Your task to perform on an android device: toggle location history Image 0: 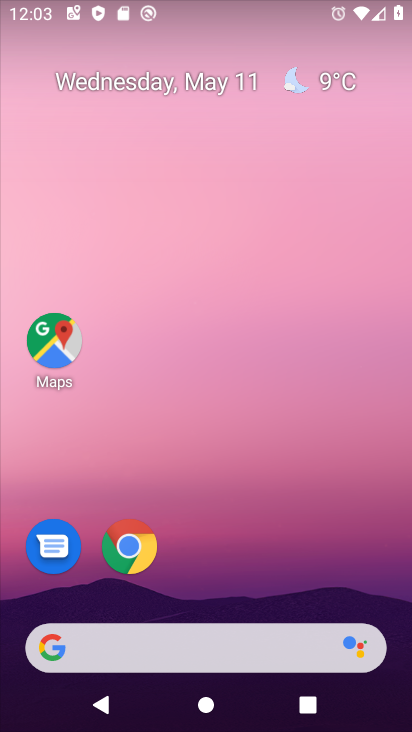
Step 0: drag from (215, 25) to (265, 4)
Your task to perform on an android device: toggle location history Image 1: 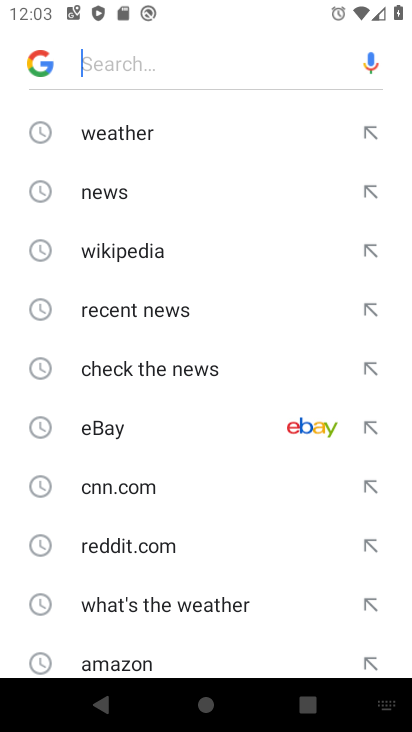
Step 1: press home button
Your task to perform on an android device: toggle location history Image 2: 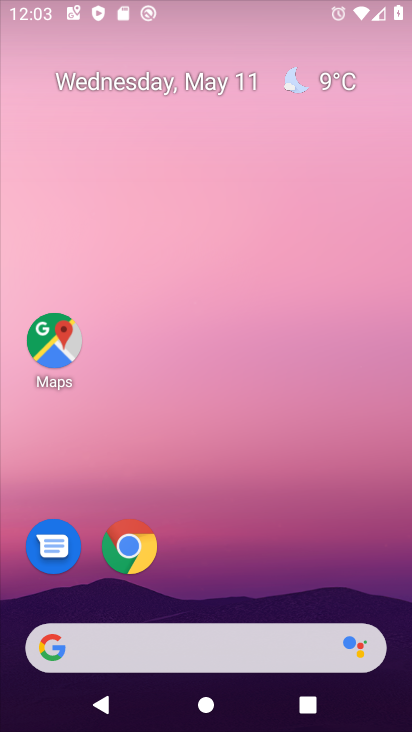
Step 2: drag from (184, 600) to (269, 24)
Your task to perform on an android device: toggle location history Image 3: 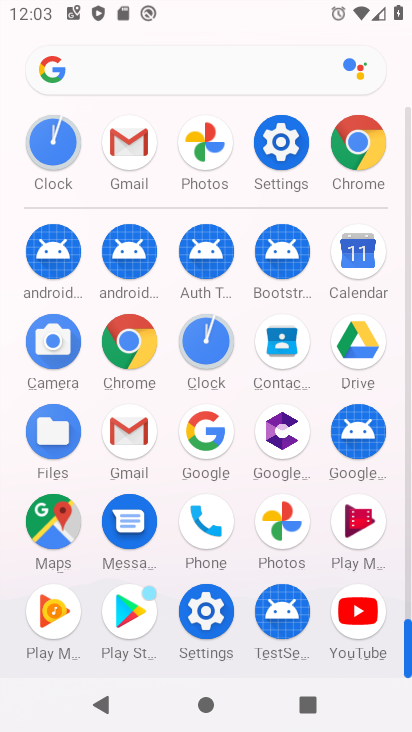
Step 3: click (287, 137)
Your task to perform on an android device: toggle location history Image 4: 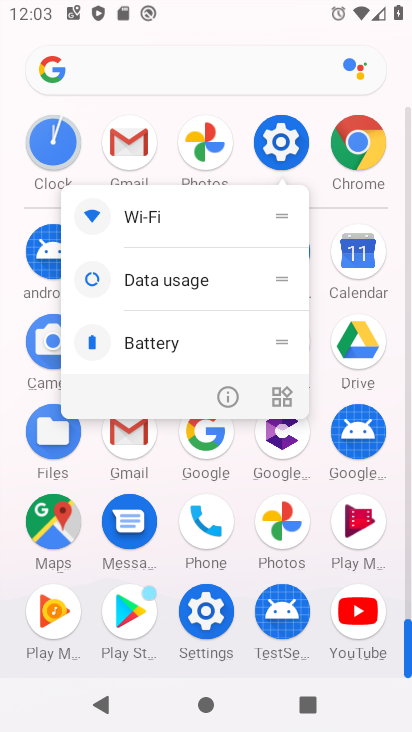
Step 4: click (229, 405)
Your task to perform on an android device: toggle location history Image 5: 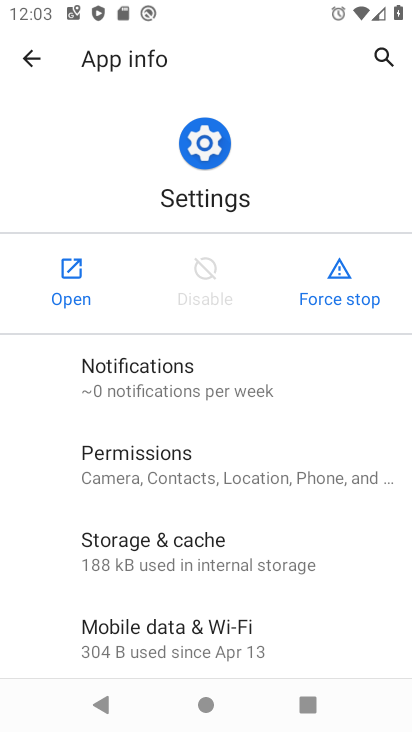
Step 5: click (46, 270)
Your task to perform on an android device: toggle location history Image 6: 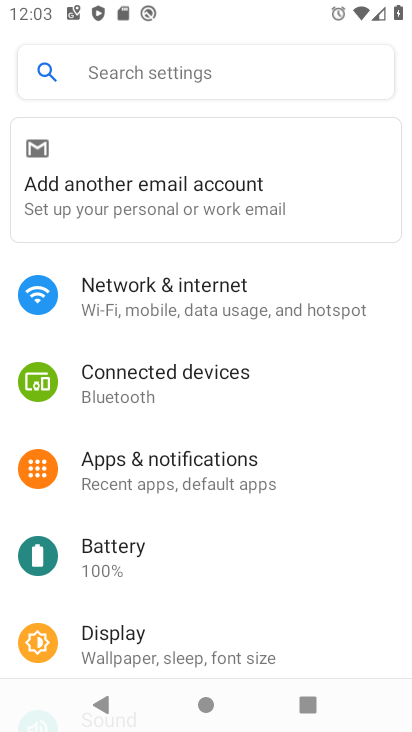
Step 6: drag from (232, 644) to (299, 272)
Your task to perform on an android device: toggle location history Image 7: 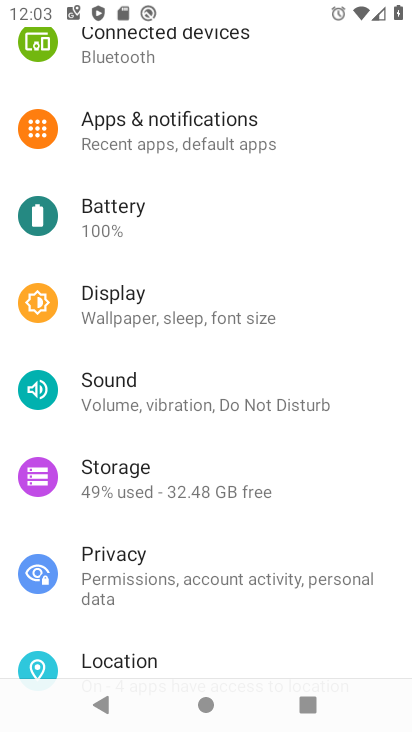
Step 7: click (131, 650)
Your task to perform on an android device: toggle location history Image 8: 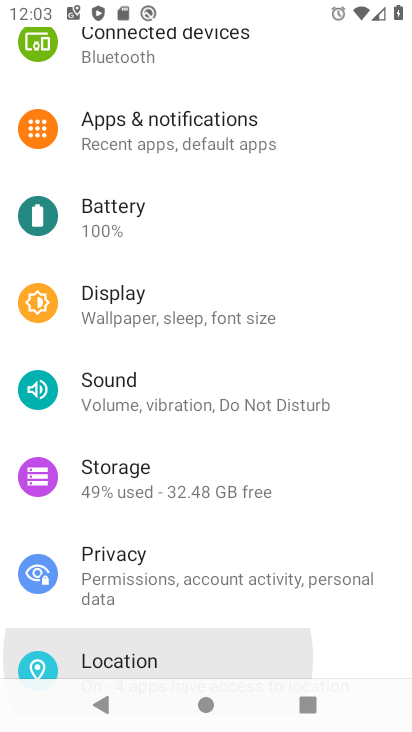
Step 8: click (131, 650)
Your task to perform on an android device: toggle location history Image 9: 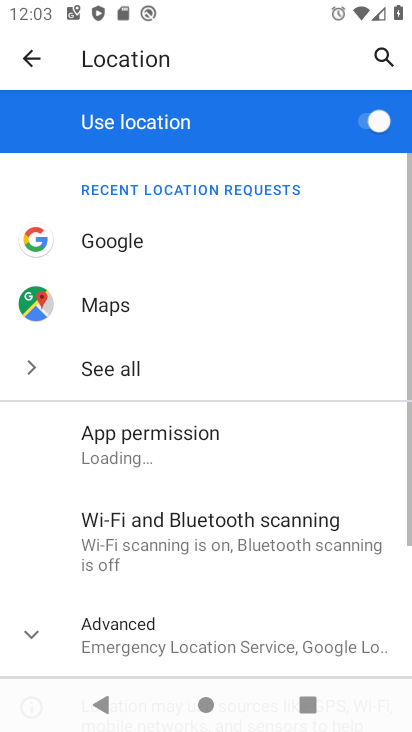
Step 9: drag from (141, 622) to (251, 110)
Your task to perform on an android device: toggle location history Image 10: 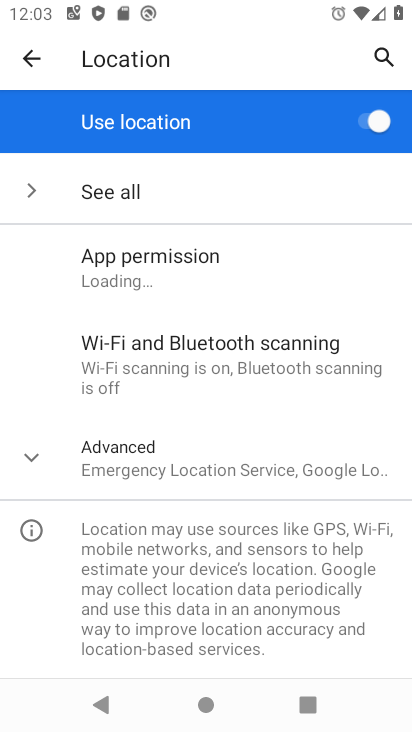
Step 10: click (192, 465)
Your task to perform on an android device: toggle location history Image 11: 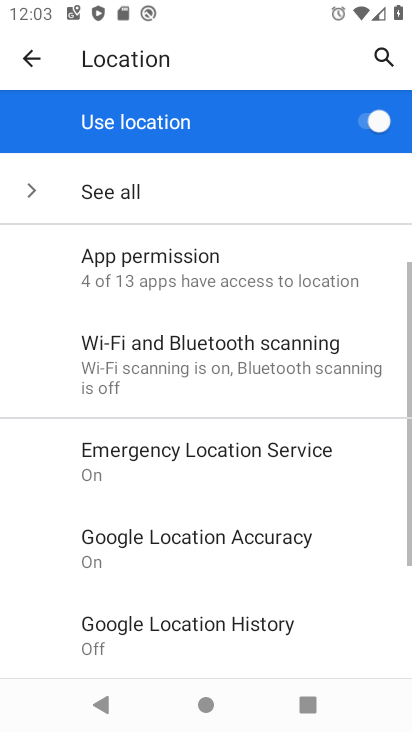
Step 11: drag from (234, 472) to (331, 216)
Your task to perform on an android device: toggle location history Image 12: 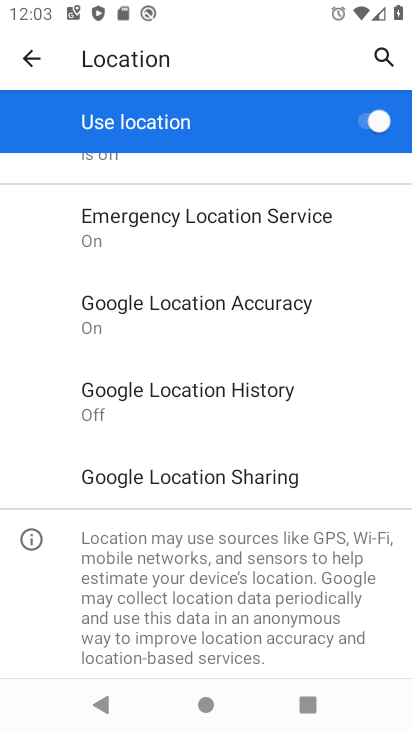
Step 12: click (235, 400)
Your task to perform on an android device: toggle location history Image 13: 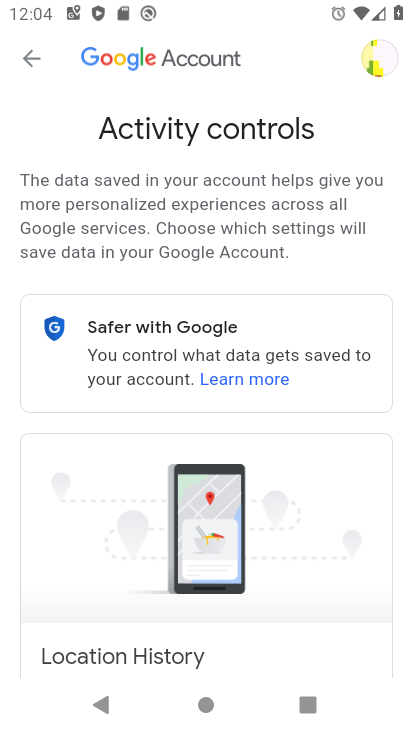
Step 13: drag from (220, 615) to (268, 447)
Your task to perform on an android device: toggle location history Image 14: 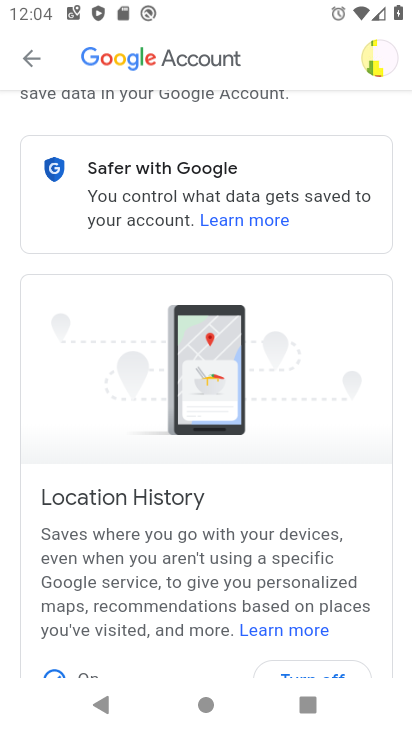
Step 14: drag from (183, 633) to (240, 460)
Your task to perform on an android device: toggle location history Image 15: 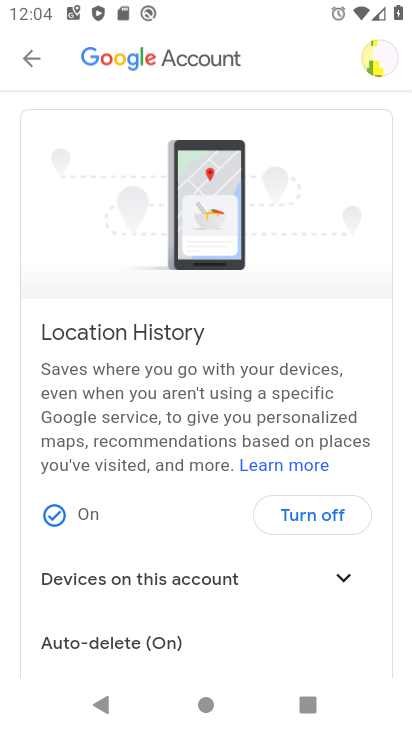
Step 15: drag from (198, 603) to (306, 335)
Your task to perform on an android device: toggle location history Image 16: 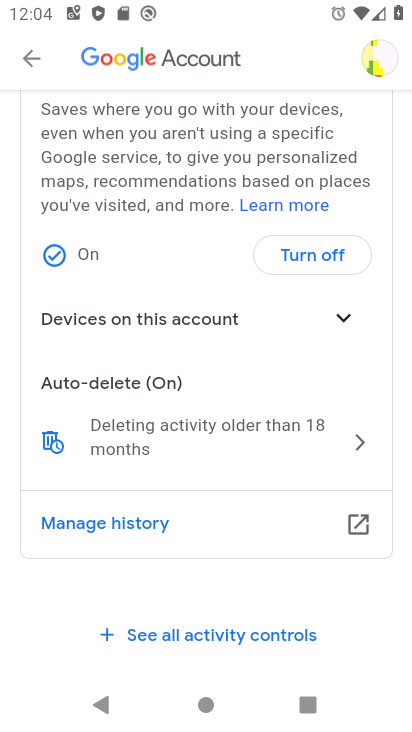
Step 16: click (325, 266)
Your task to perform on an android device: toggle location history Image 17: 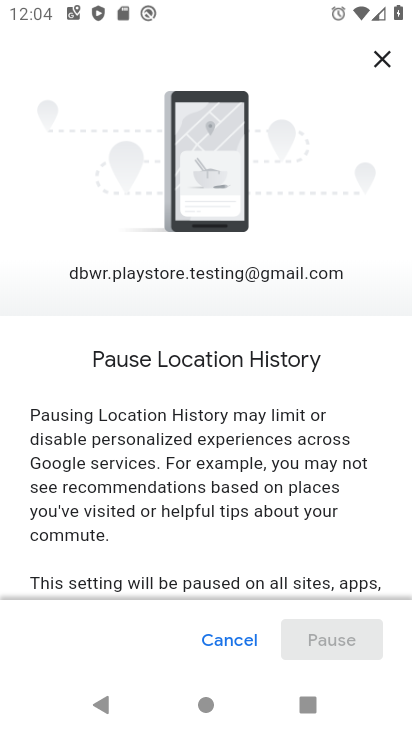
Step 17: drag from (222, 587) to (303, 379)
Your task to perform on an android device: toggle location history Image 18: 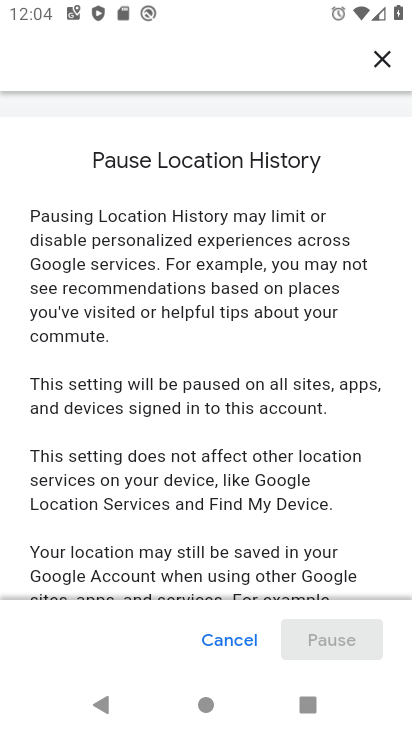
Step 18: drag from (215, 541) to (332, 248)
Your task to perform on an android device: toggle location history Image 19: 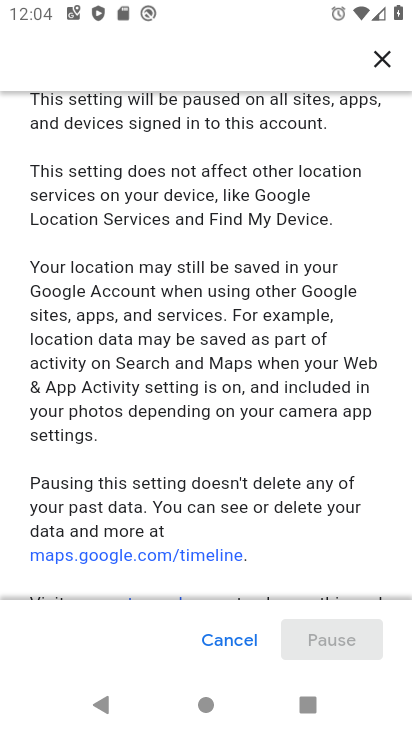
Step 19: drag from (204, 535) to (249, 383)
Your task to perform on an android device: toggle location history Image 20: 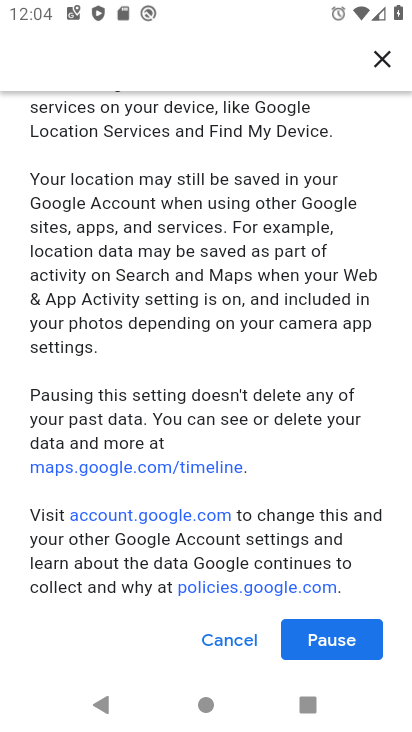
Step 20: click (331, 662)
Your task to perform on an android device: toggle location history Image 21: 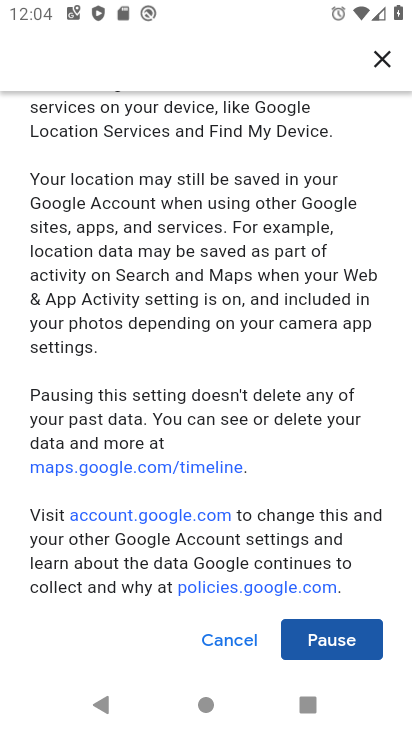
Step 21: click (340, 632)
Your task to perform on an android device: toggle location history Image 22: 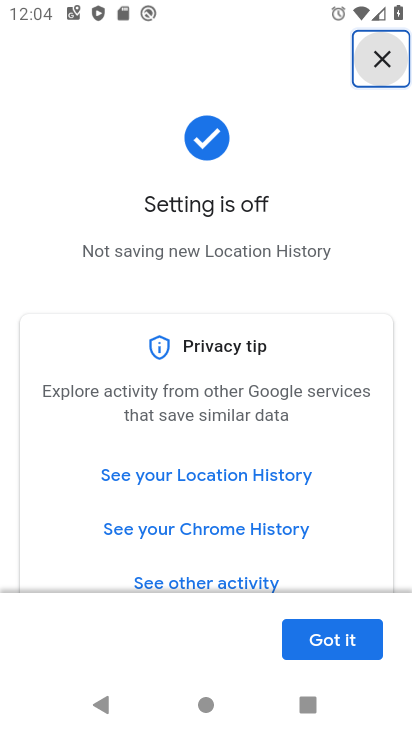
Step 22: click (337, 633)
Your task to perform on an android device: toggle location history Image 23: 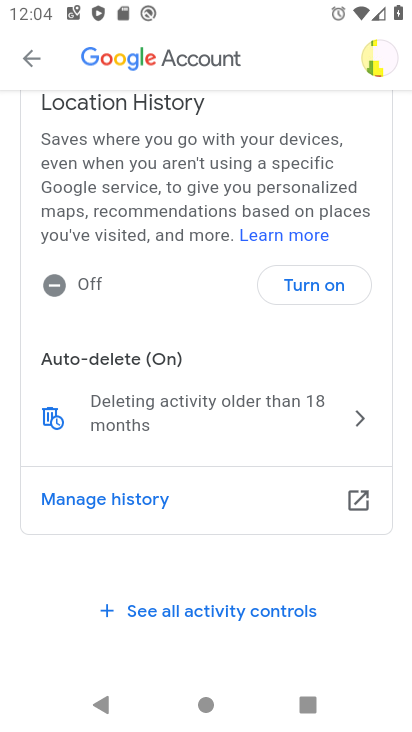
Step 23: task complete